Your task to perform on an android device: Open calendar and show me the fourth week of next month Image 0: 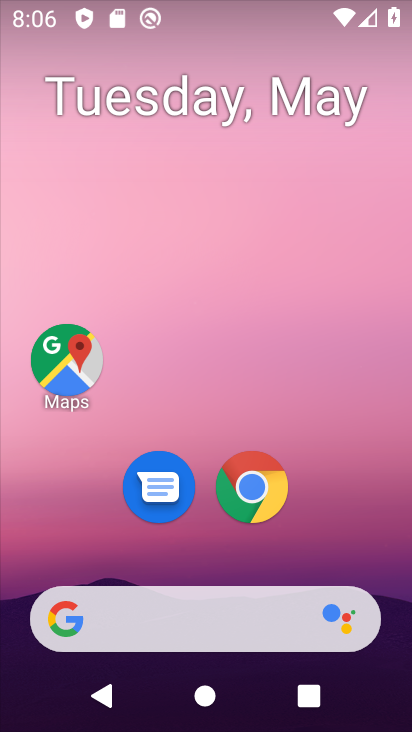
Step 0: drag from (309, 536) to (315, 85)
Your task to perform on an android device: Open calendar and show me the fourth week of next month Image 1: 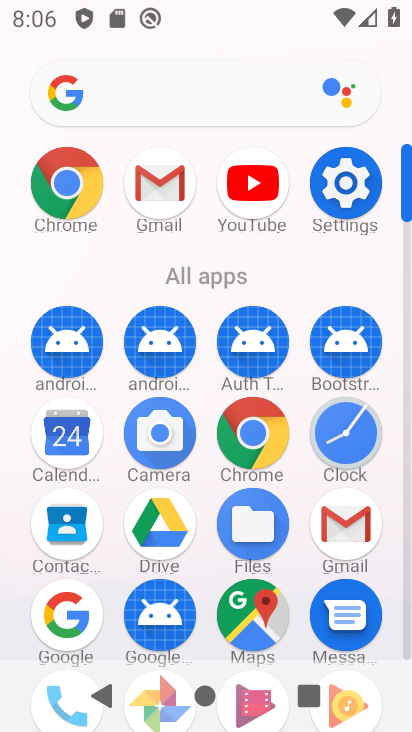
Step 1: click (59, 437)
Your task to perform on an android device: Open calendar and show me the fourth week of next month Image 2: 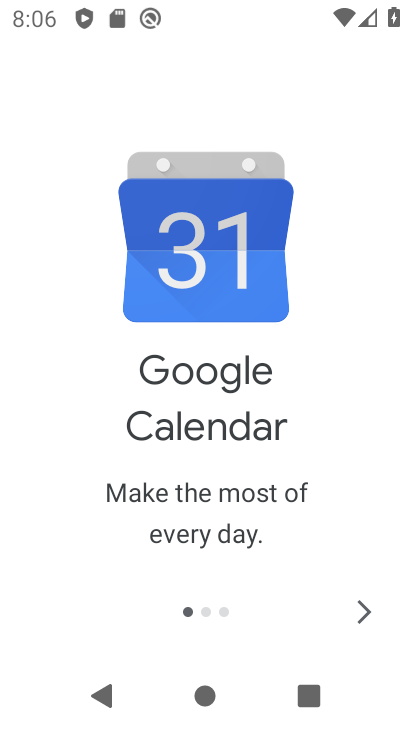
Step 2: click (358, 608)
Your task to perform on an android device: Open calendar and show me the fourth week of next month Image 3: 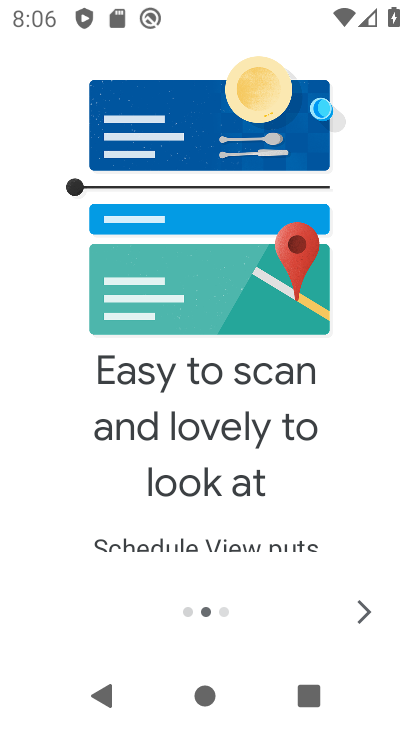
Step 3: click (358, 608)
Your task to perform on an android device: Open calendar and show me the fourth week of next month Image 4: 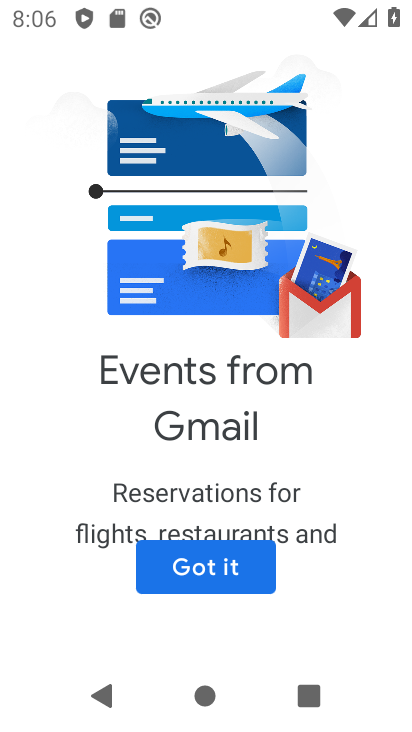
Step 4: click (175, 563)
Your task to perform on an android device: Open calendar and show me the fourth week of next month Image 5: 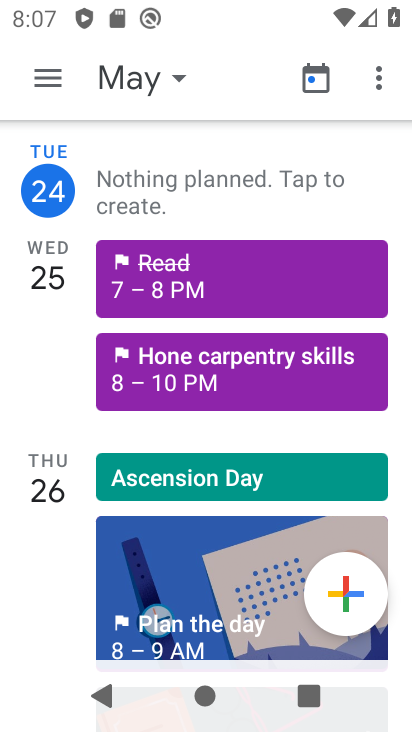
Step 5: click (168, 75)
Your task to perform on an android device: Open calendar and show me the fourth week of next month Image 6: 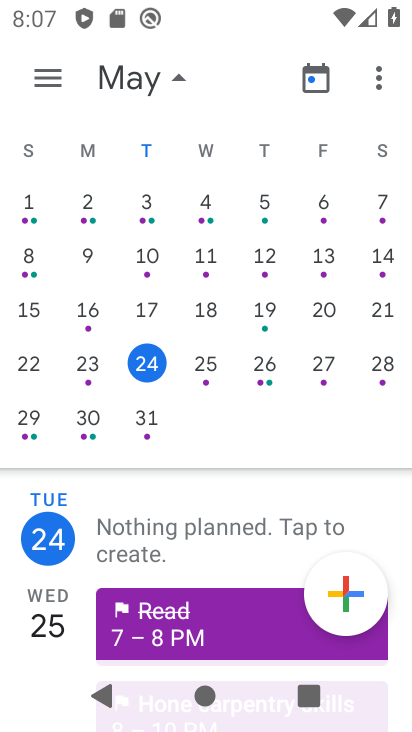
Step 6: drag from (389, 224) to (14, 233)
Your task to perform on an android device: Open calendar and show me the fourth week of next month Image 7: 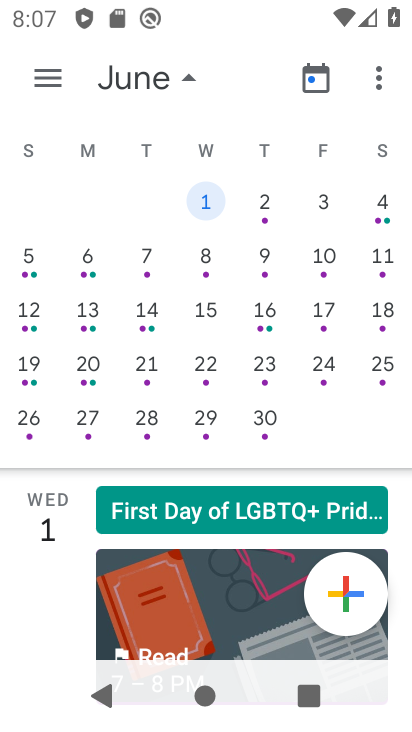
Step 7: click (194, 413)
Your task to perform on an android device: Open calendar and show me the fourth week of next month Image 8: 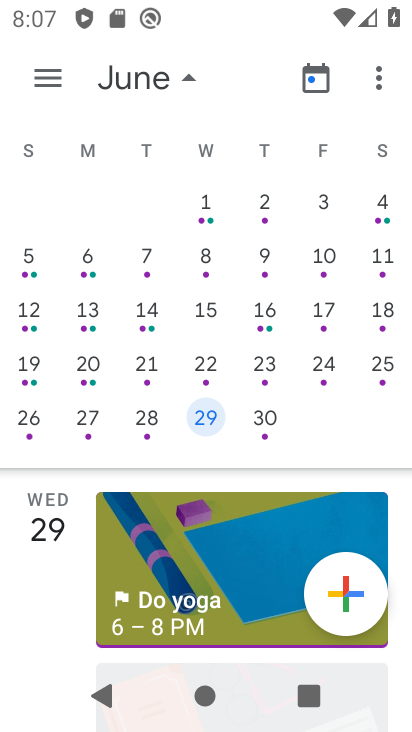
Step 8: task complete